Your task to perform on an android device: open sync settings in chrome Image 0: 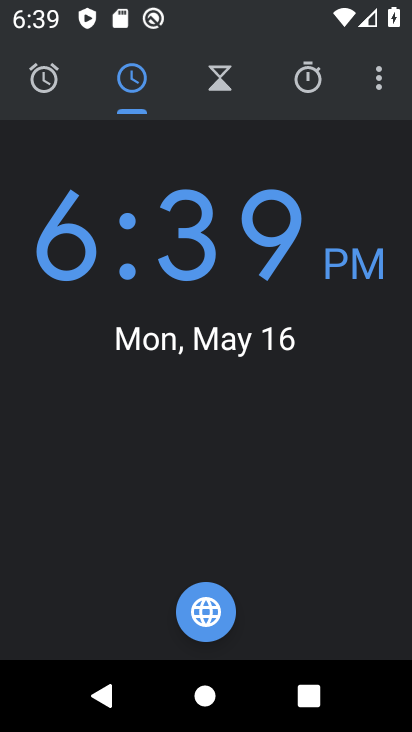
Step 0: press home button
Your task to perform on an android device: open sync settings in chrome Image 1: 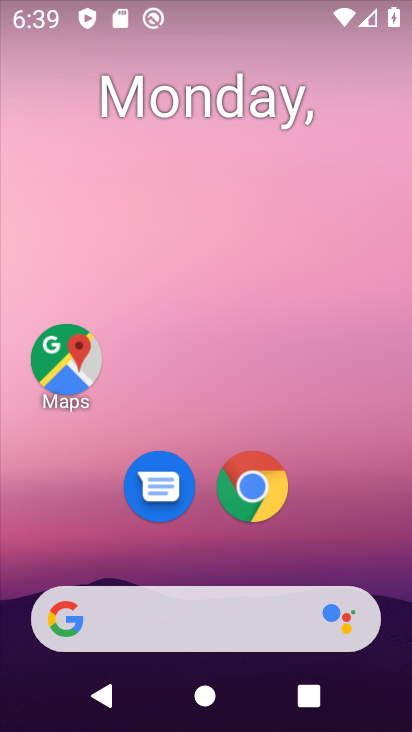
Step 1: click (261, 482)
Your task to perform on an android device: open sync settings in chrome Image 2: 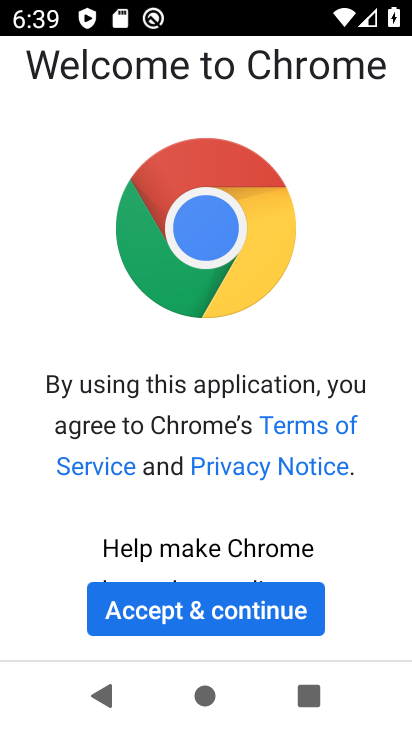
Step 2: click (244, 595)
Your task to perform on an android device: open sync settings in chrome Image 3: 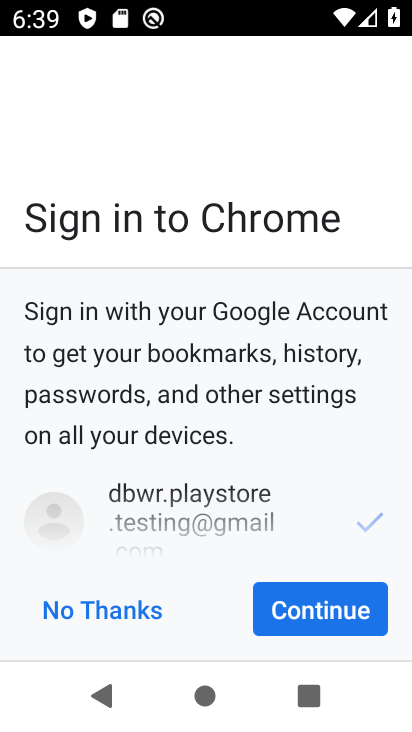
Step 3: click (290, 609)
Your task to perform on an android device: open sync settings in chrome Image 4: 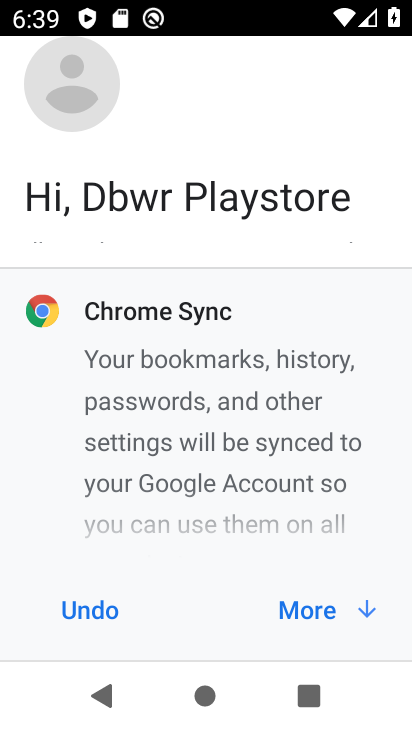
Step 4: click (357, 603)
Your task to perform on an android device: open sync settings in chrome Image 5: 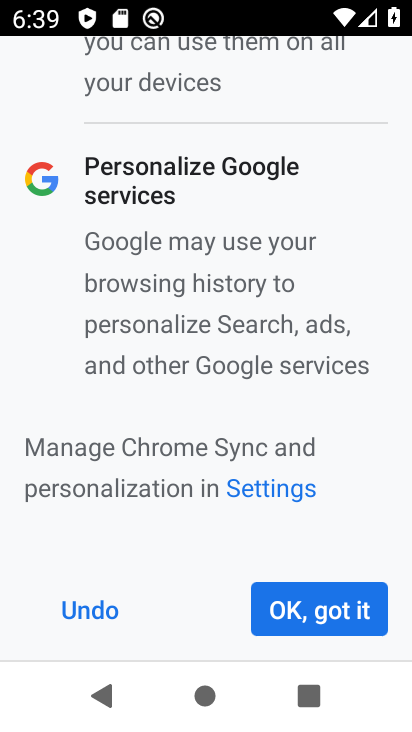
Step 5: click (326, 617)
Your task to perform on an android device: open sync settings in chrome Image 6: 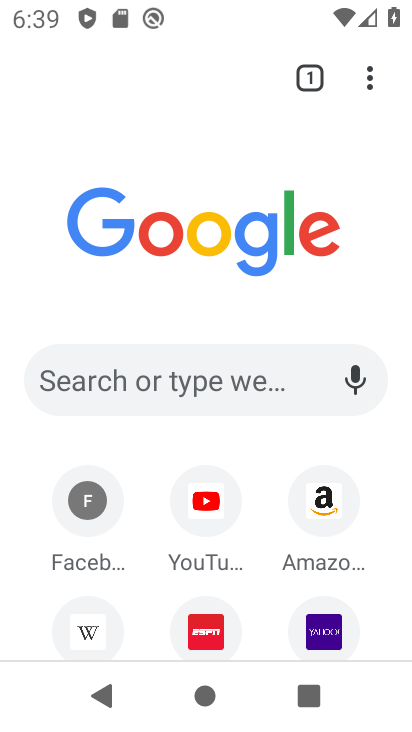
Step 6: click (367, 73)
Your task to perform on an android device: open sync settings in chrome Image 7: 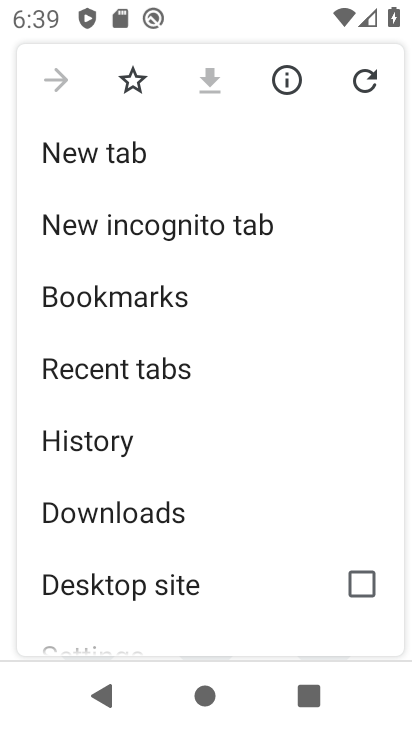
Step 7: drag from (238, 518) to (170, 300)
Your task to perform on an android device: open sync settings in chrome Image 8: 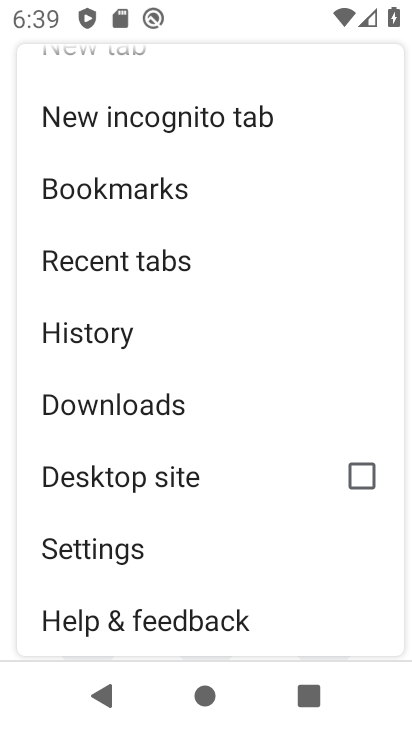
Step 8: click (74, 553)
Your task to perform on an android device: open sync settings in chrome Image 9: 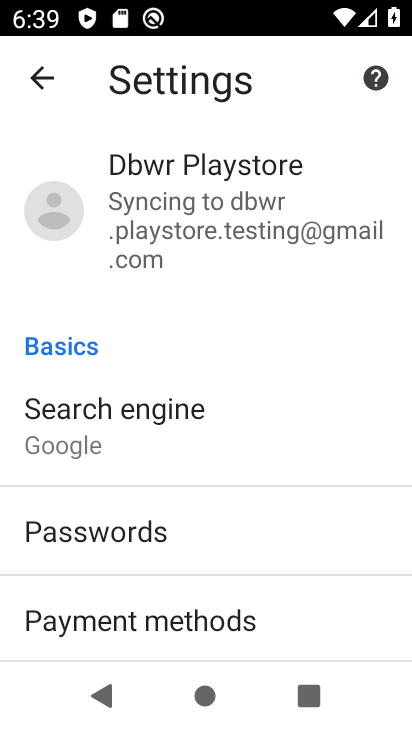
Step 9: click (195, 165)
Your task to perform on an android device: open sync settings in chrome Image 10: 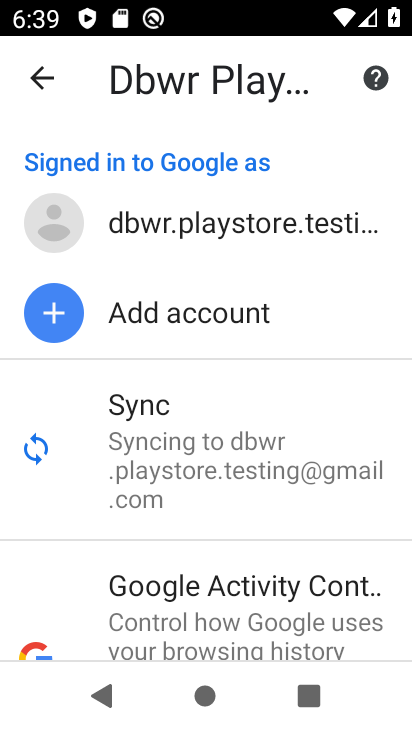
Step 10: click (130, 417)
Your task to perform on an android device: open sync settings in chrome Image 11: 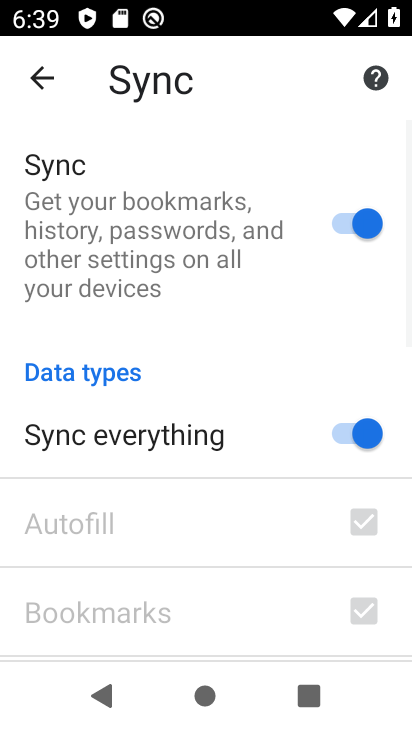
Step 11: task complete